Your task to perform on an android device: Search for pizza restaurants on Maps Image 0: 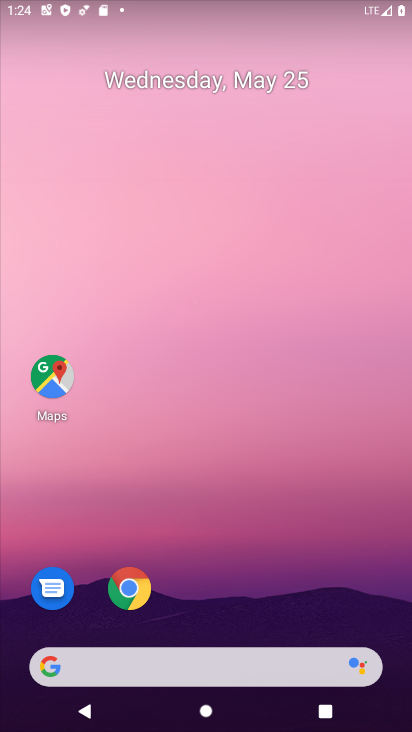
Step 0: click (46, 384)
Your task to perform on an android device: Search for pizza restaurants on Maps Image 1: 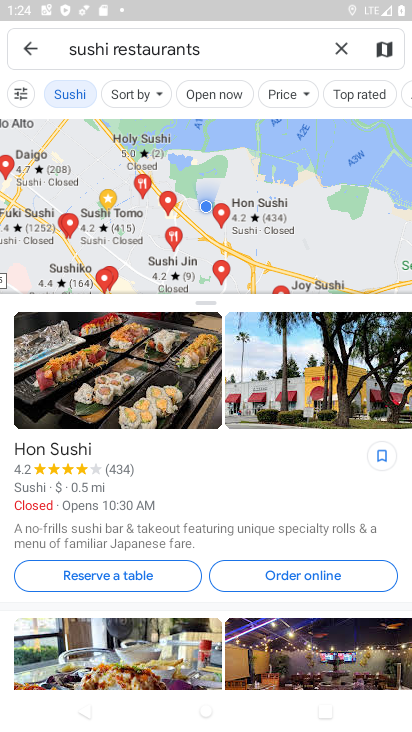
Step 1: click (337, 52)
Your task to perform on an android device: Search for pizza restaurants on Maps Image 2: 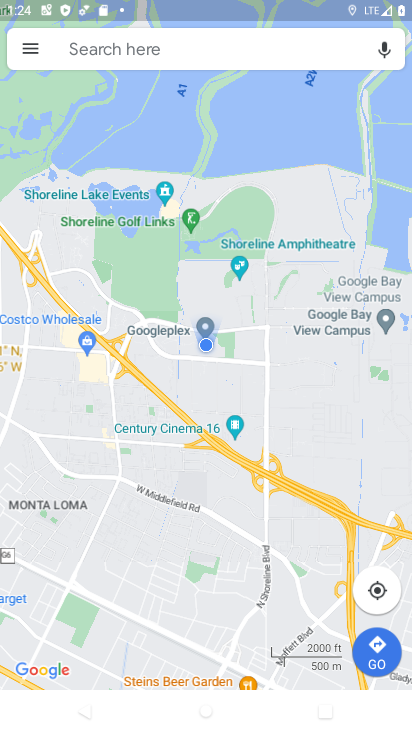
Step 2: click (86, 47)
Your task to perform on an android device: Search for pizza restaurants on Maps Image 3: 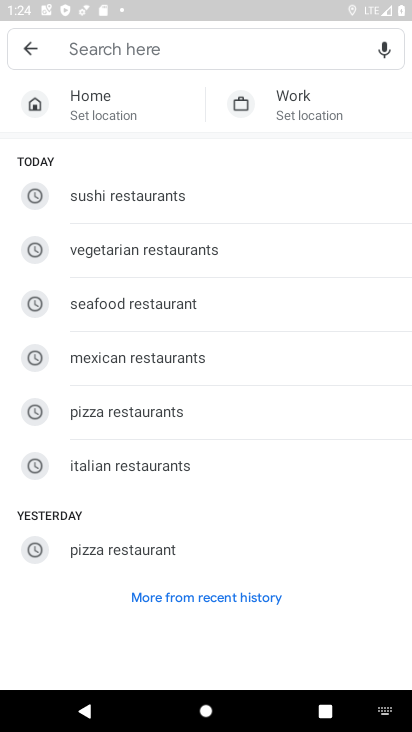
Step 3: type "pizza restaurants"
Your task to perform on an android device: Search for pizza restaurants on Maps Image 4: 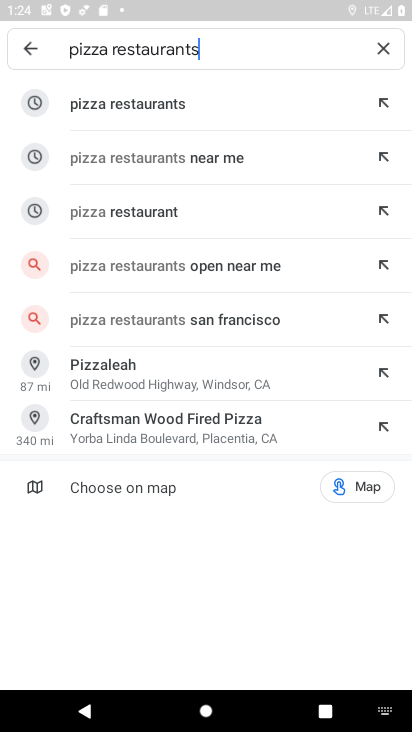
Step 4: click (103, 106)
Your task to perform on an android device: Search for pizza restaurants on Maps Image 5: 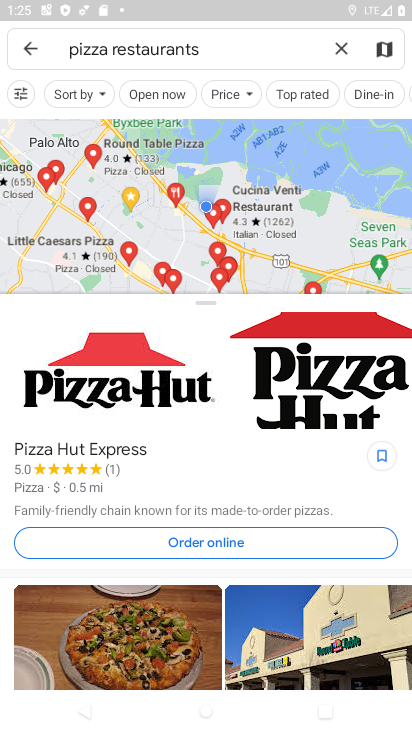
Step 5: task complete